Your task to perform on an android device: Go to CNN.com Image 0: 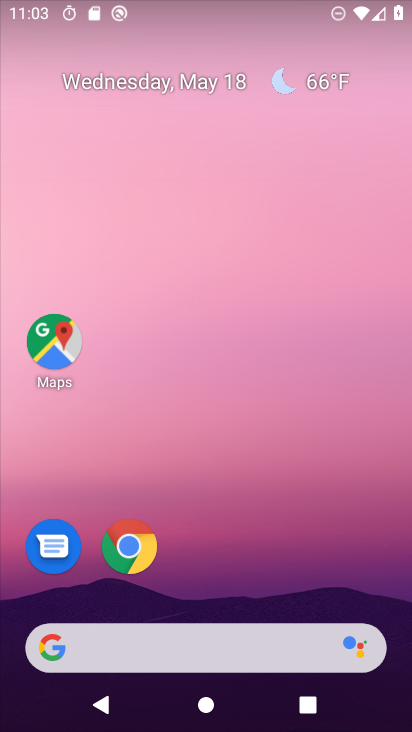
Step 0: click (131, 544)
Your task to perform on an android device: Go to CNN.com Image 1: 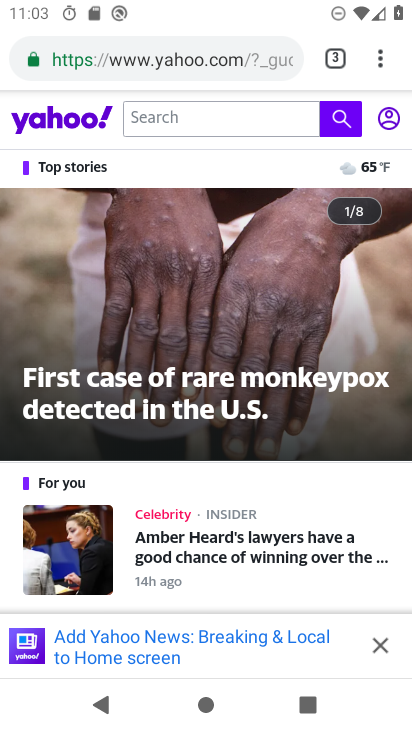
Step 1: click (259, 65)
Your task to perform on an android device: Go to CNN.com Image 2: 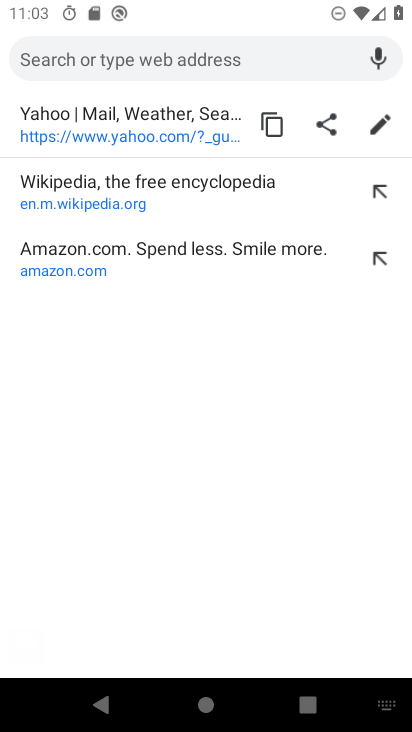
Step 2: type "cnn.com"
Your task to perform on an android device: Go to CNN.com Image 3: 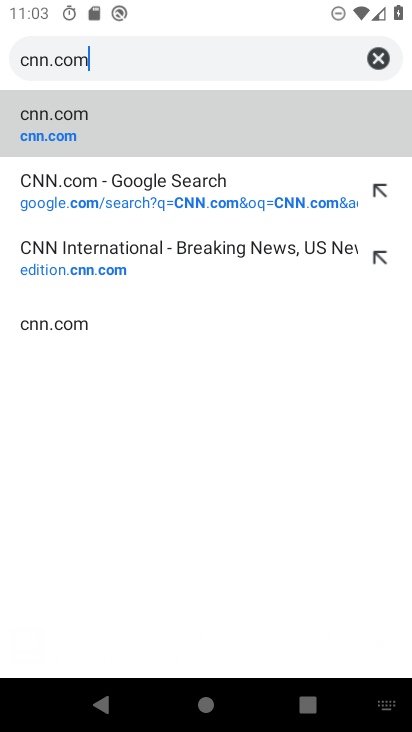
Step 3: type ""
Your task to perform on an android device: Go to CNN.com Image 4: 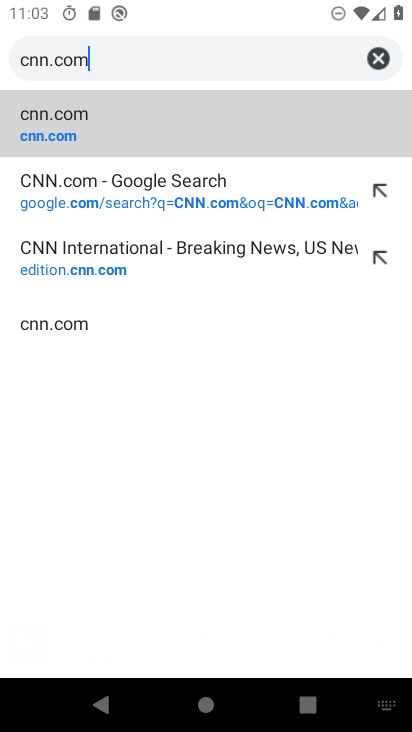
Step 4: click (67, 129)
Your task to perform on an android device: Go to CNN.com Image 5: 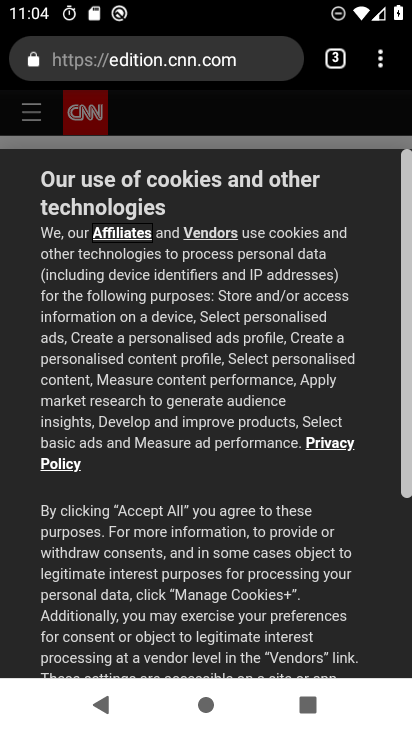
Step 5: task complete